Your task to perform on an android device: open app "File Manager" (install if not already installed) Image 0: 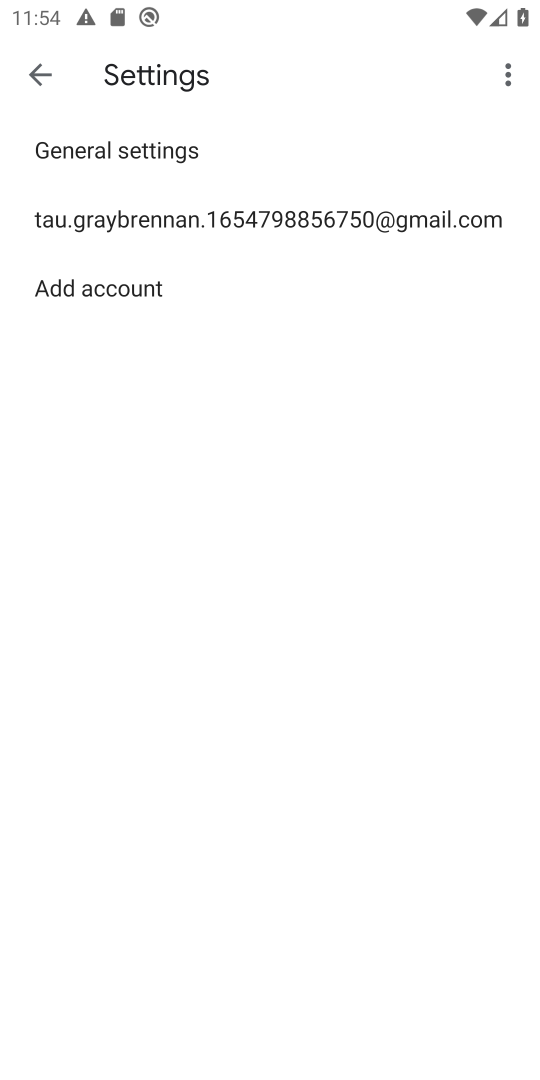
Step 0: press home button
Your task to perform on an android device: open app "File Manager" (install if not already installed) Image 1: 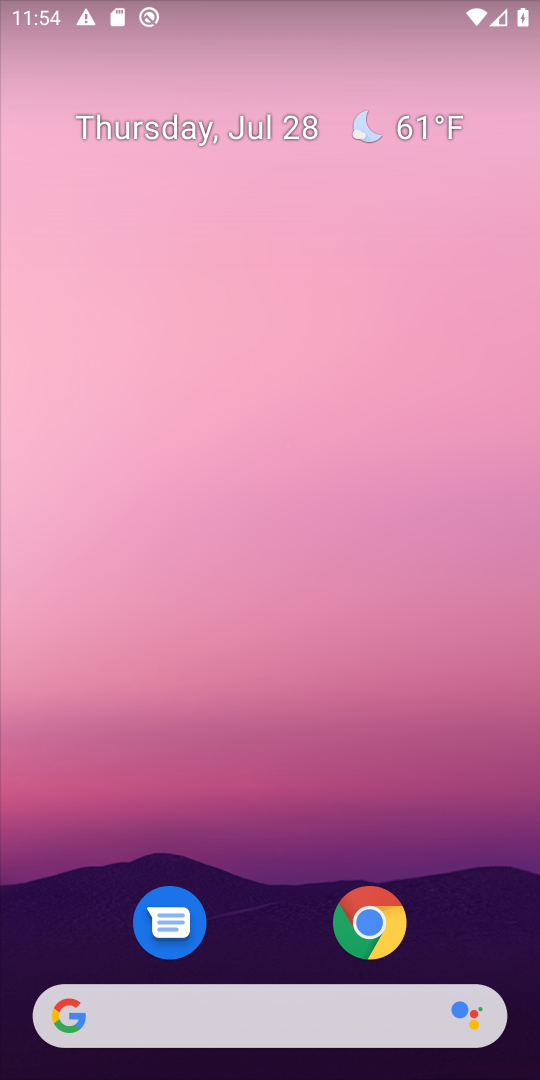
Step 1: drag from (392, 691) to (348, 43)
Your task to perform on an android device: open app "File Manager" (install if not already installed) Image 2: 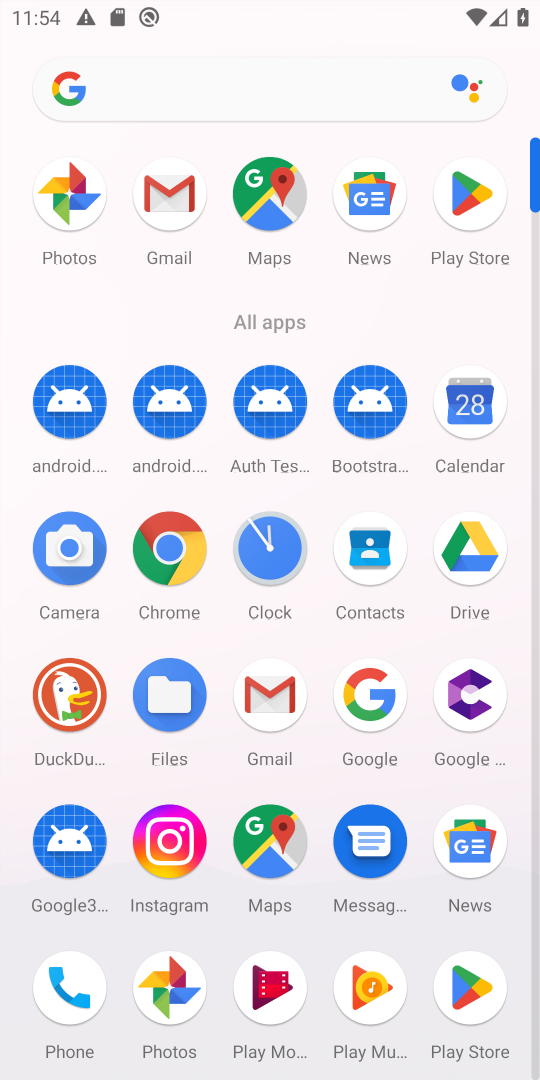
Step 2: click (476, 197)
Your task to perform on an android device: open app "File Manager" (install if not already installed) Image 3: 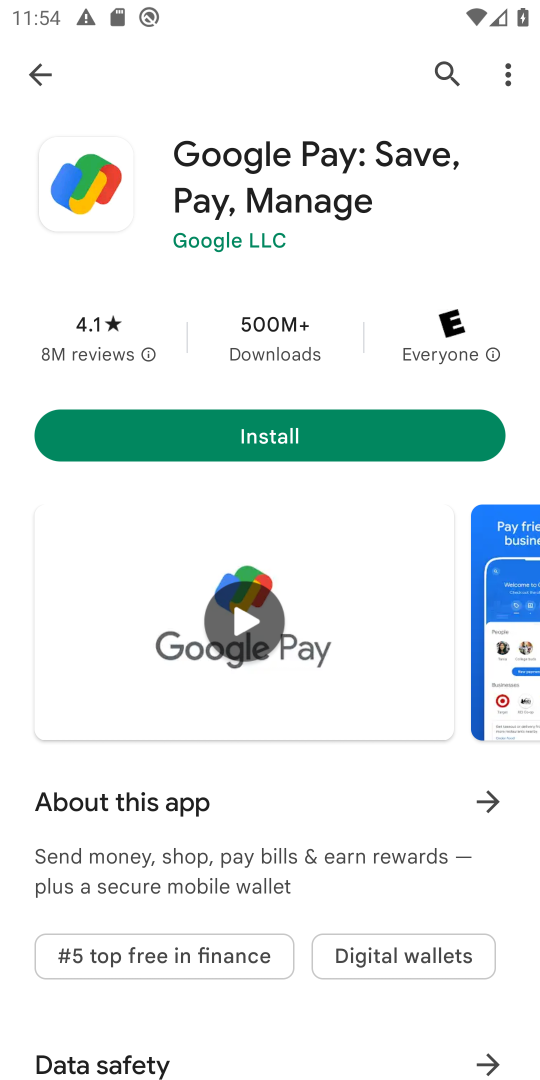
Step 3: click (442, 71)
Your task to perform on an android device: open app "File Manager" (install if not already installed) Image 4: 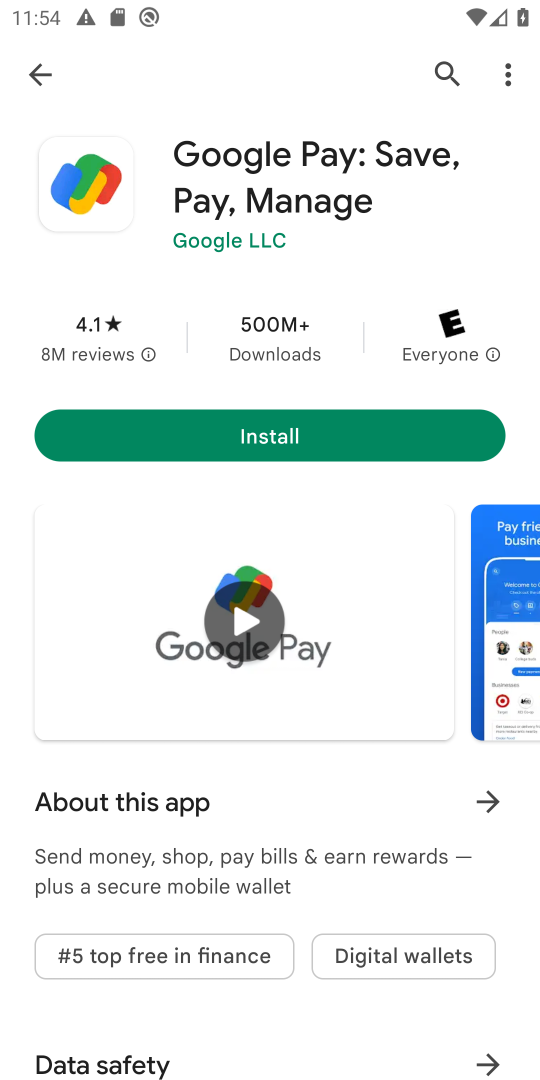
Step 4: click (444, 66)
Your task to perform on an android device: open app "File Manager" (install if not already installed) Image 5: 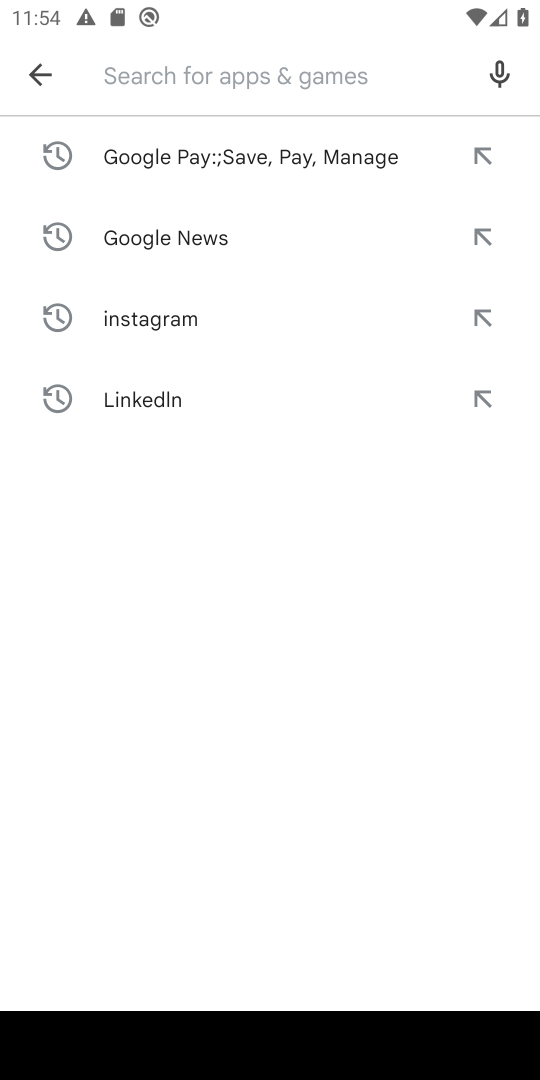
Step 5: type "File Manager"
Your task to perform on an android device: open app "File Manager" (install if not already installed) Image 6: 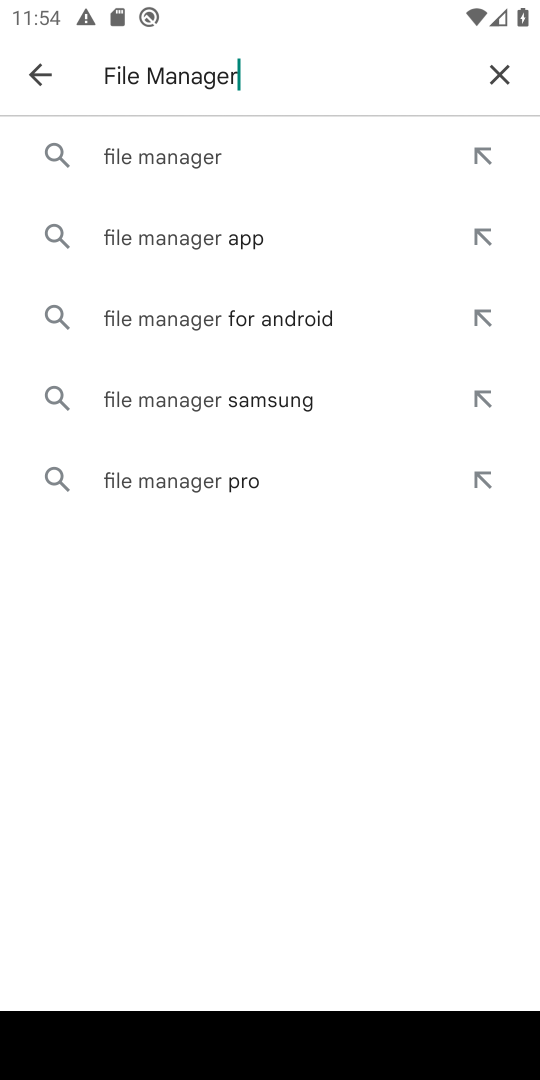
Step 6: press enter
Your task to perform on an android device: open app "File Manager" (install if not already installed) Image 7: 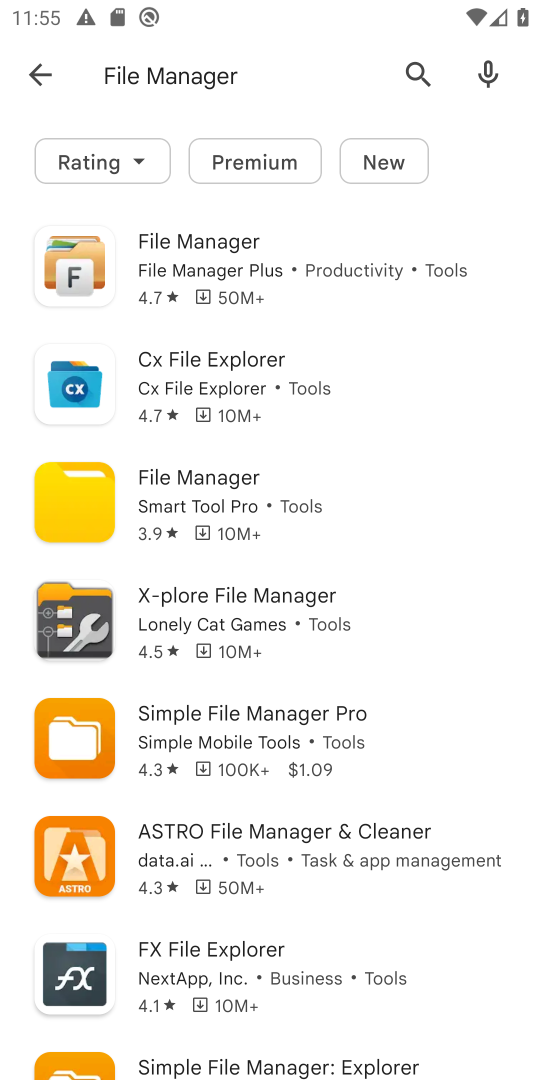
Step 7: click (237, 272)
Your task to perform on an android device: open app "File Manager" (install if not already installed) Image 8: 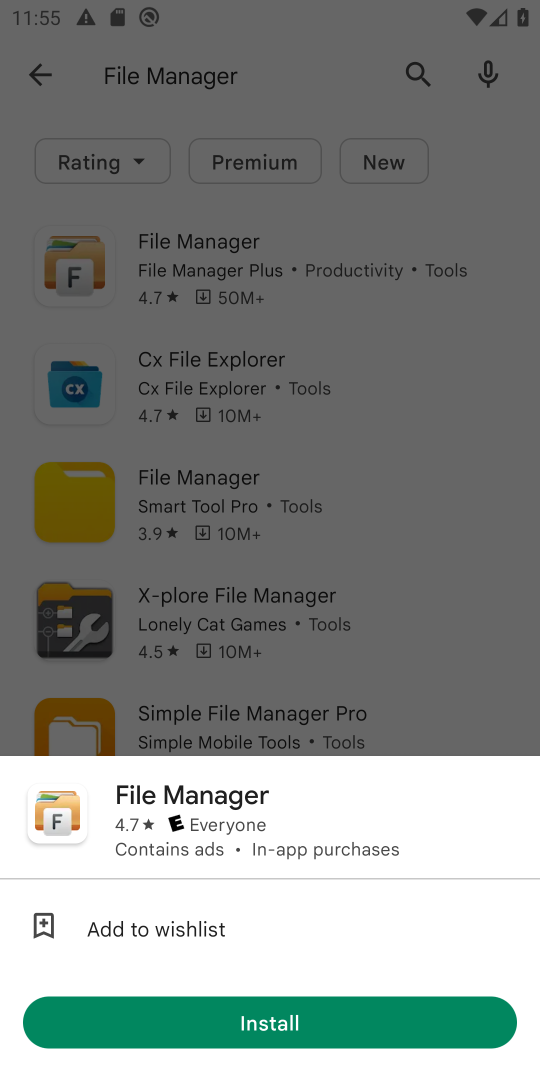
Step 8: click (301, 1026)
Your task to perform on an android device: open app "File Manager" (install if not already installed) Image 9: 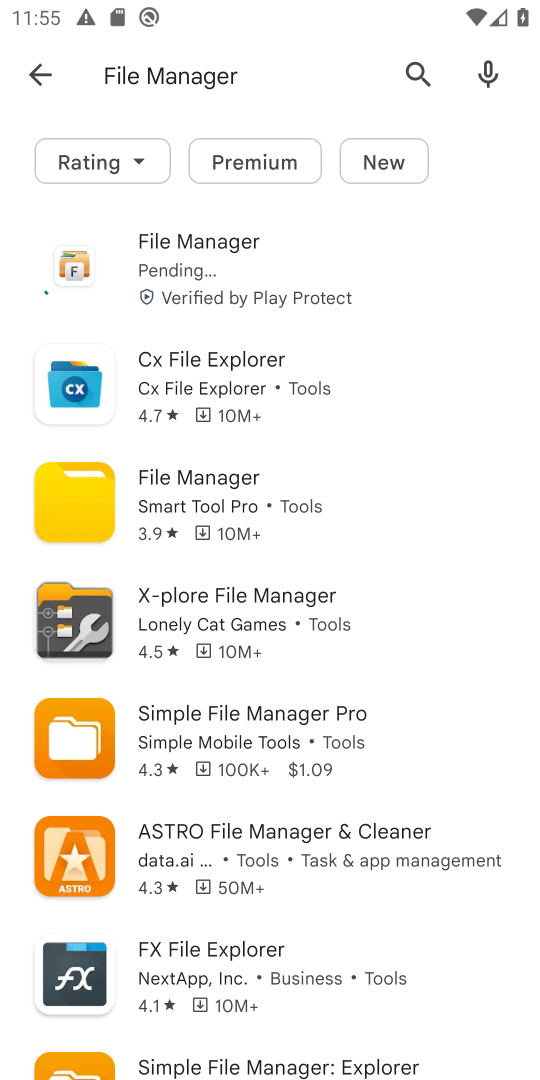
Step 9: click (138, 256)
Your task to perform on an android device: open app "File Manager" (install if not already installed) Image 10: 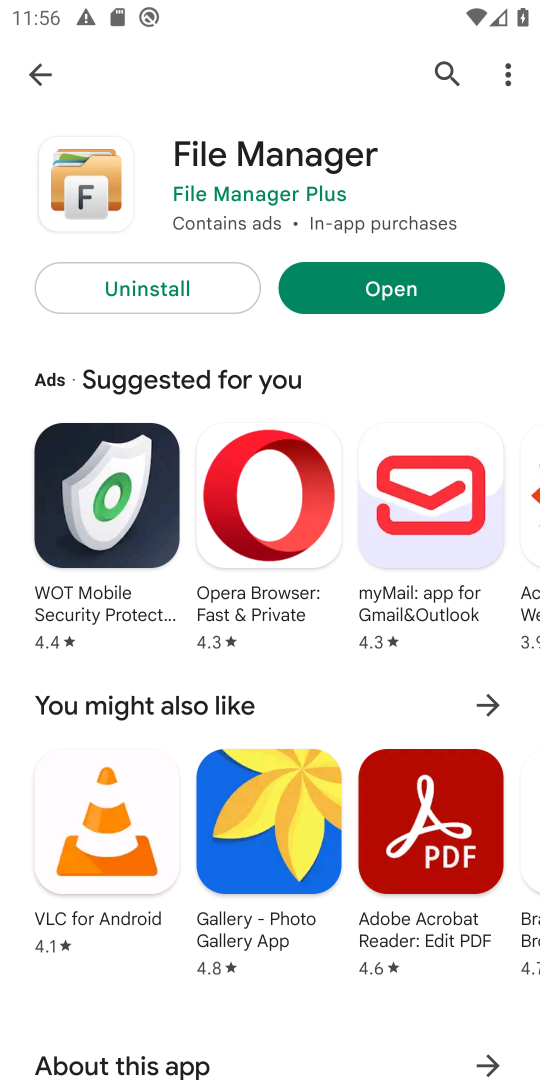
Step 10: click (384, 299)
Your task to perform on an android device: open app "File Manager" (install if not already installed) Image 11: 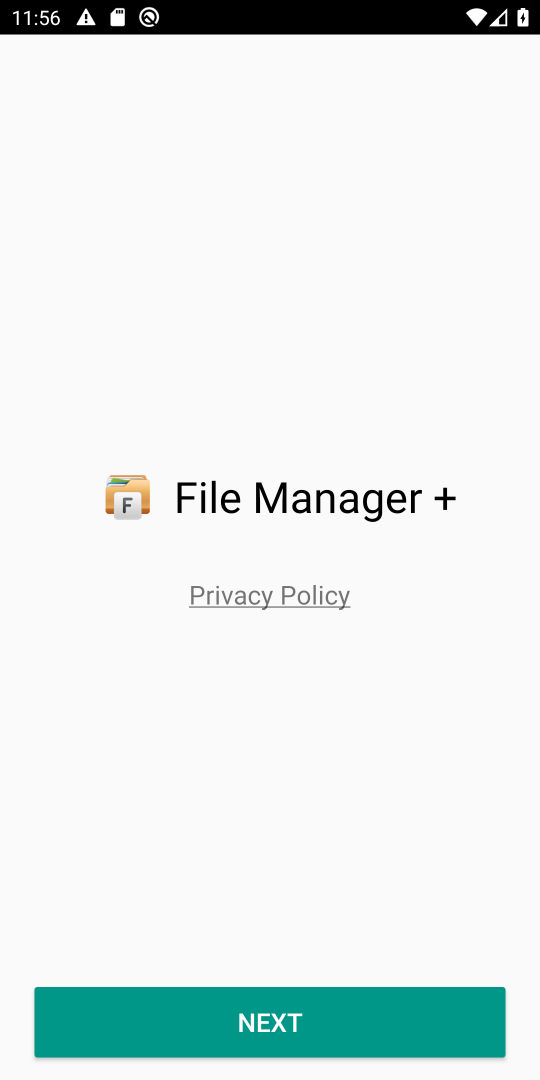
Step 11: task complete